Your task to perform on an android device: allow notifications from all sites in the chrome app Image 0: 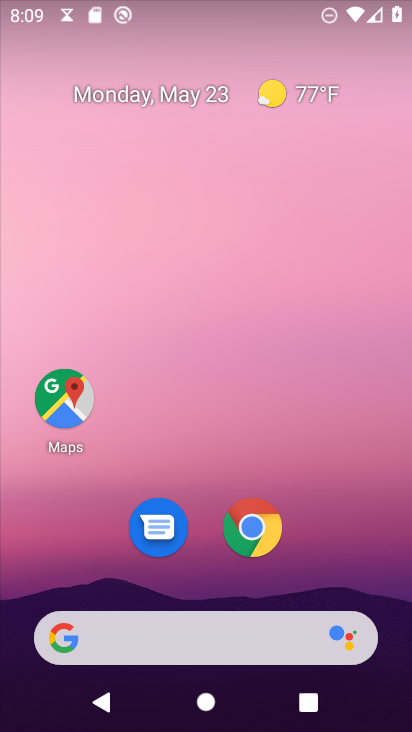
Step 0: press home button
Your task to perform on an android device: allow notifications from all sites in the chrome app Image 1: 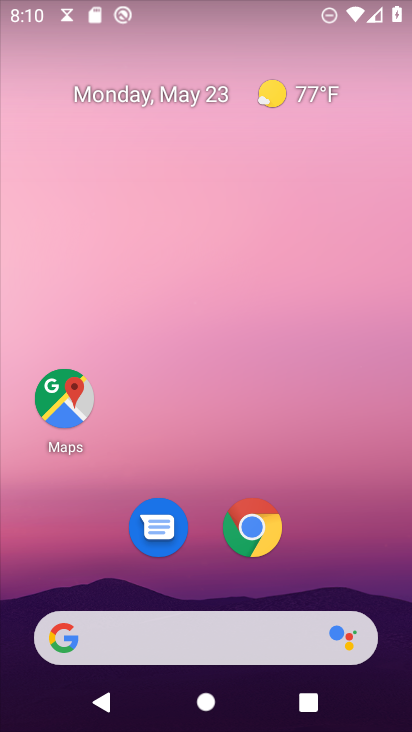
Step 1: drag from (268, 637) to (228, 83)
Your task to perform on an android device: allow notifications from all sites in the chrome app Image 2: 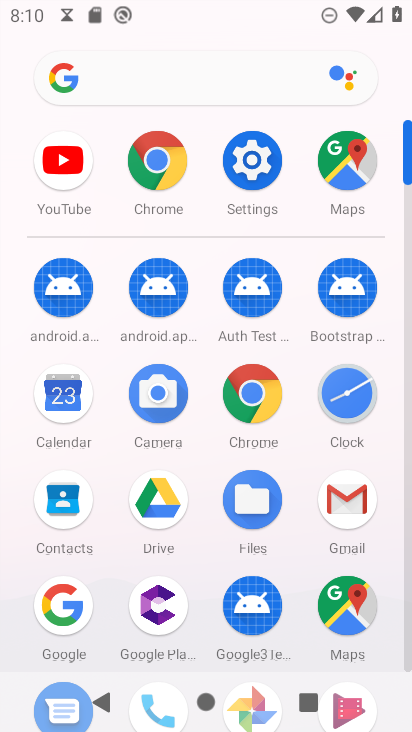
Step 2: click (267, 392)
Your task to perform on an android device: allow notifications from all sites in the chrome app Image 3: 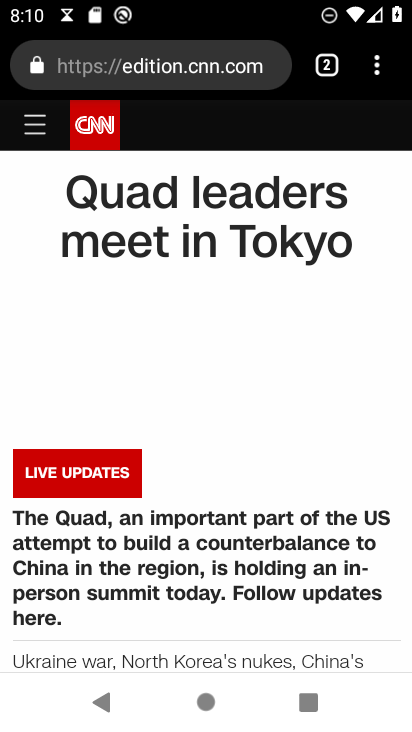
Step 3: click (366, 82)
Your task to perform on an android device: allow notifications from all sites in the chrome app Image 4: 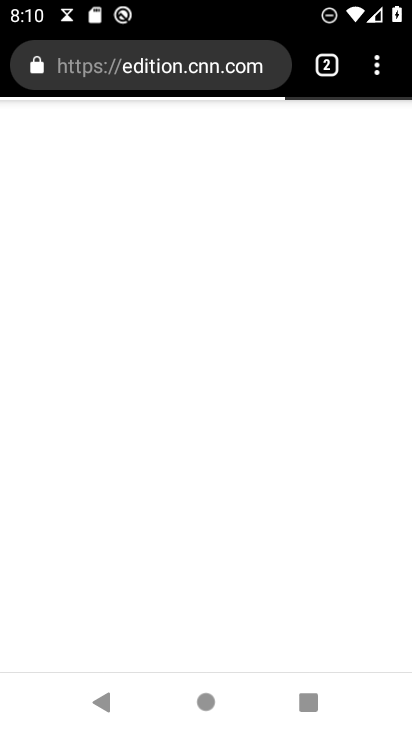
Step 4: click (385, 87)
Your task to perform on an android device: allow notifications from all sites in the chrome app Image 5: 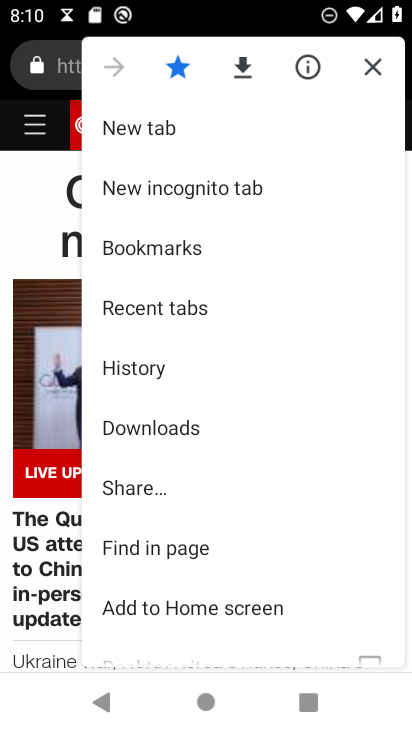
Step 5: drag from (197, 531) to (205, 322)
Your task to perform on an android device: allow notifications from all sites in the chrome app Image 6: 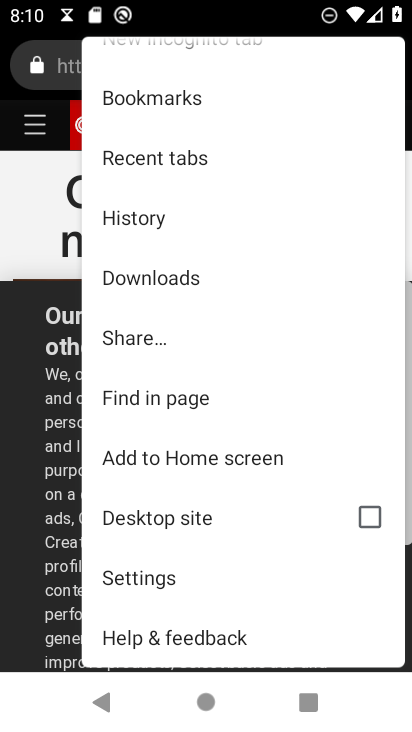
Step 6: click (165, 566)
Your task to perform on an android device: allow notifications from all sites in the chrome app Image 7: 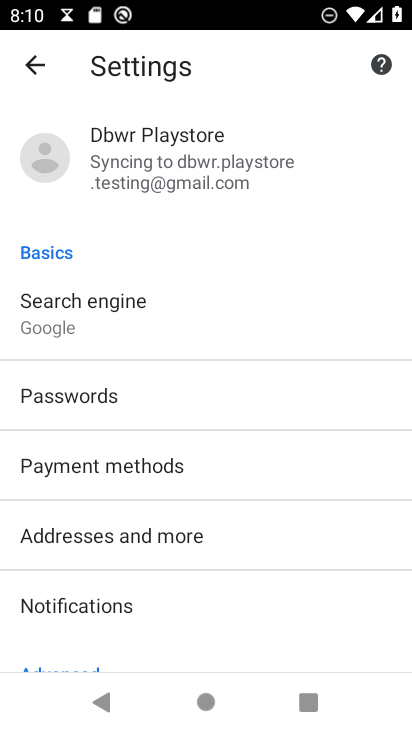
Step 7: drag from (169, 563) to (268, 245)
Your task to perform on an android device: allow notifications from all sites in the chrome app Image 8: 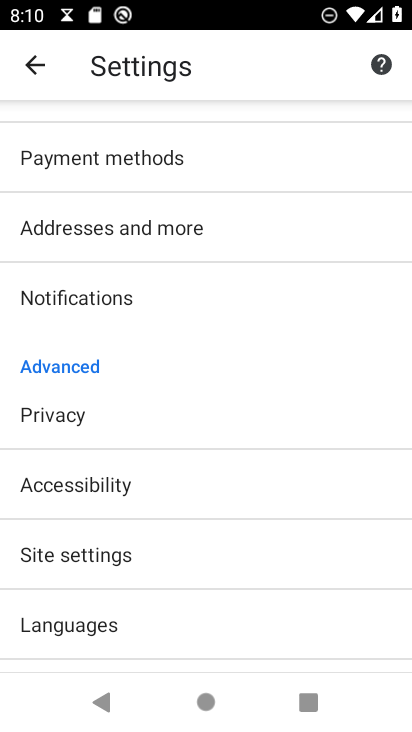
Step 8: click (121, 560)
Your task to perform on an android device: allow notifications from all sites in the chrome app Image 9: 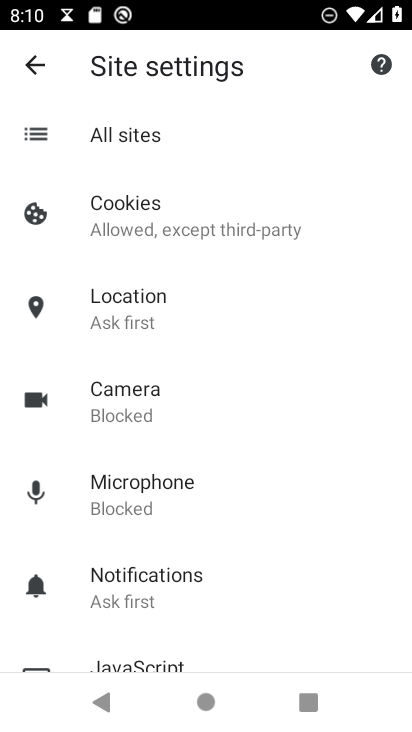
Step 9: click (123, 575)
Your task to perform on an android device: allow notifications from all sites in the chrome app Image 10: 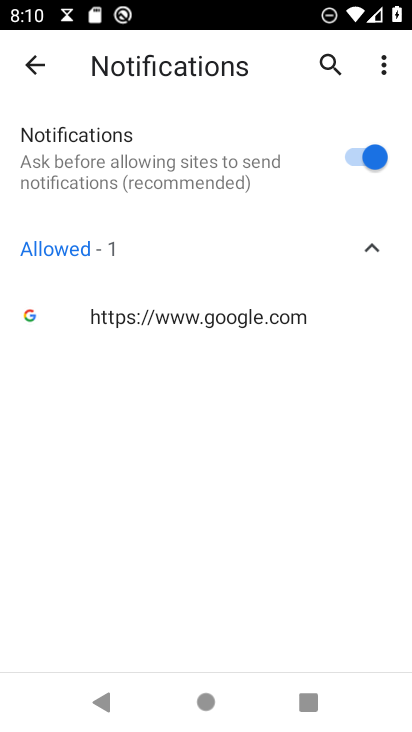
Step 10: click (381, 164)
Your task to perform on an android device: allow notifications from all sites in the chrome app Image 11: 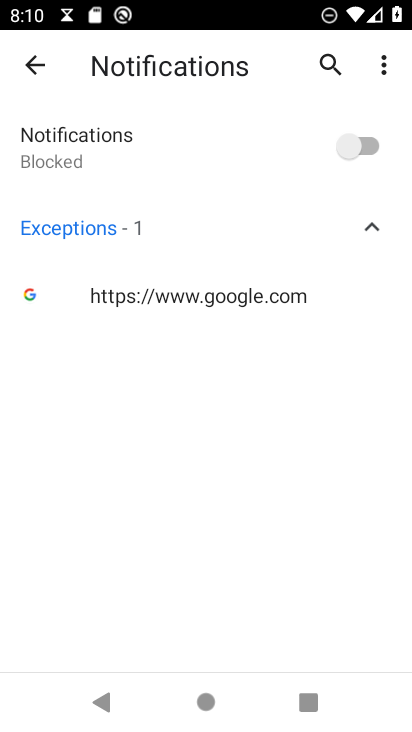
Step 11: click (380, 161)
Your task to perform on an android device: allow notifications from all sites in the chrome app Image 12: 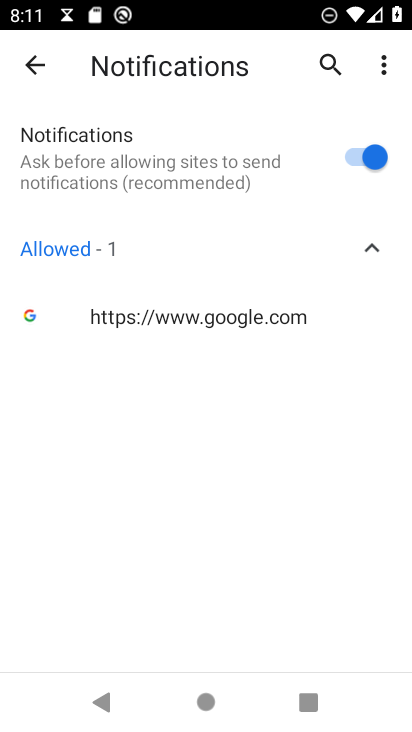
Step 12: task complete